Your task to perform on an android device: read, delete, or share a saved page in the chrome app Image 0: 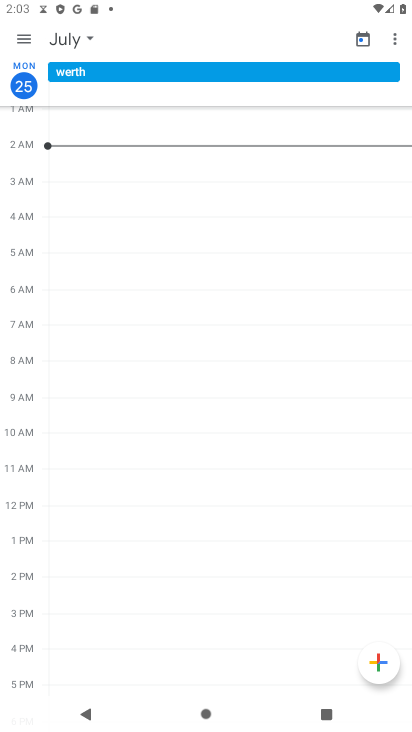
Step 0: press home button
Your task to perform on an android device: read, delete, or share a saved page in the chrome app Image 1: 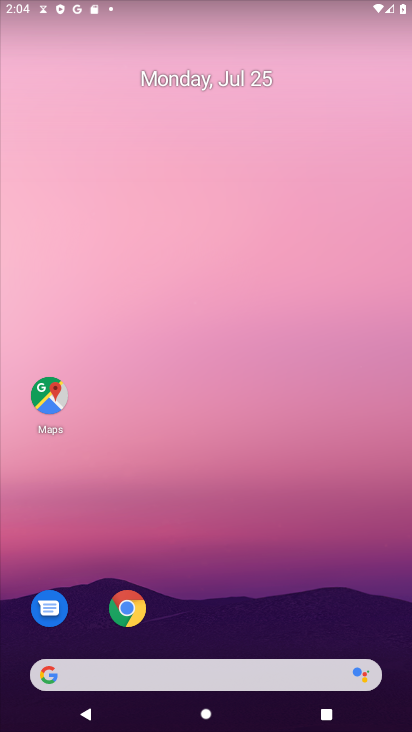
Step 1: click (128, 607)
Your task to perform on an android device: read, delete, or share a saved page in the chrome app Image 2: 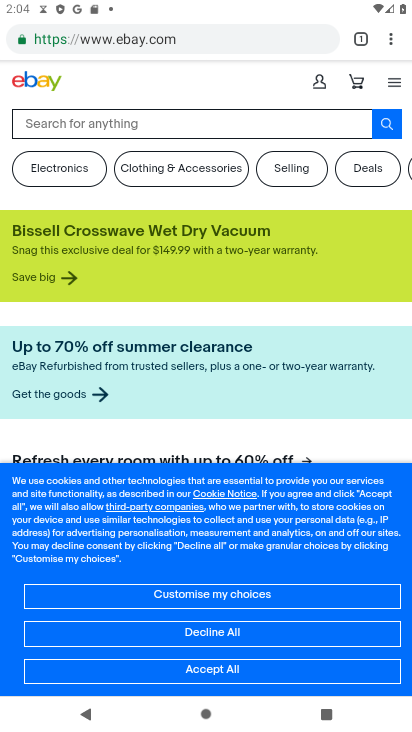
Step 2: click (390, 37)
Your task to perform on an android device: read, delete, or share a saved page in the chrome app Image 3: 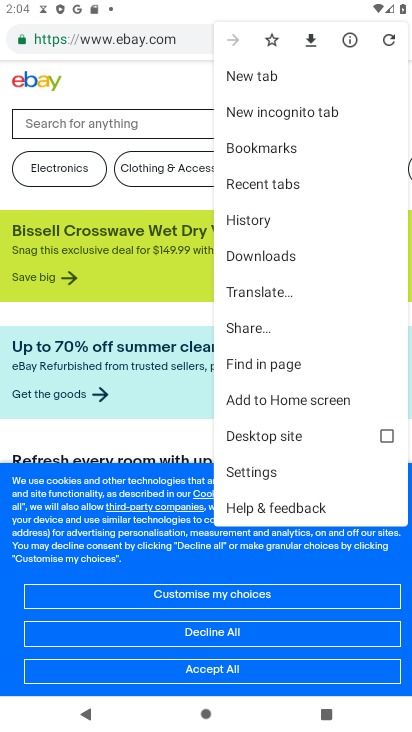
Step 3: click (277, 256)
Your task to perform on an android device: read, delete, or share a saved page in the chrome app Image 4: 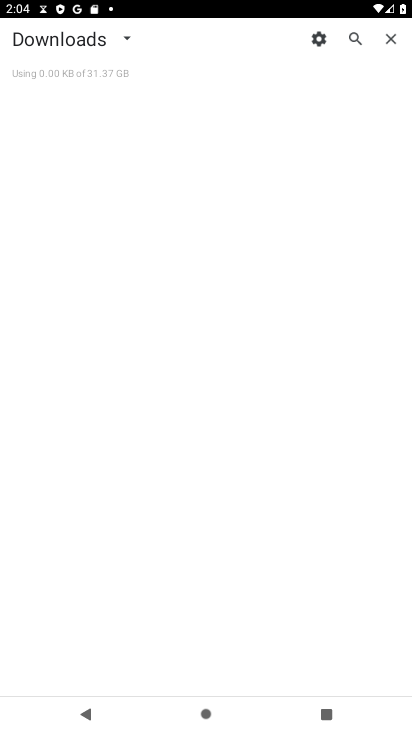
Step 4: click (126, 35)
Your task to perform on an android device: read, delete, or share a saved page in the chrome app Image 5: 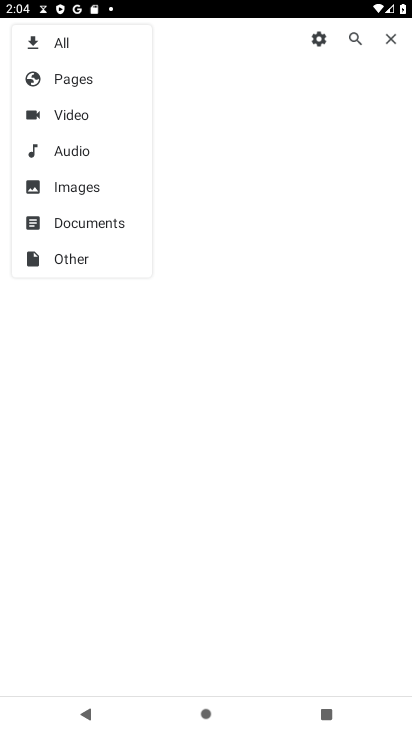
Step 5: click (72, 228)
Your task to perform on an android device: read, delete, or share a saved page in the chrome app Image 6: 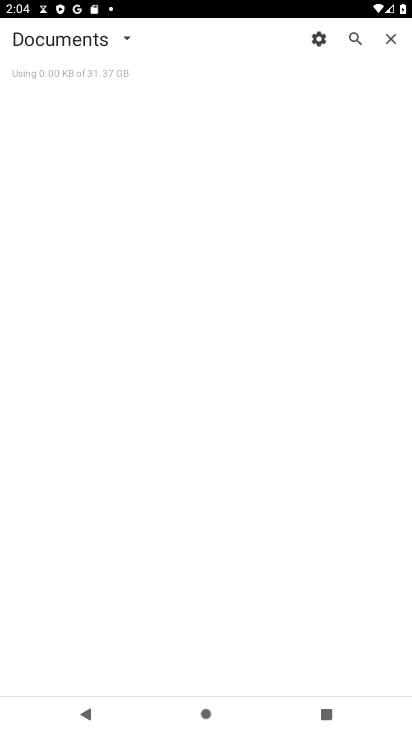
Step 6: click (127, 42)
Your task to perform on an android device: read, delete, or share a saved page in the chrome app Image 7: 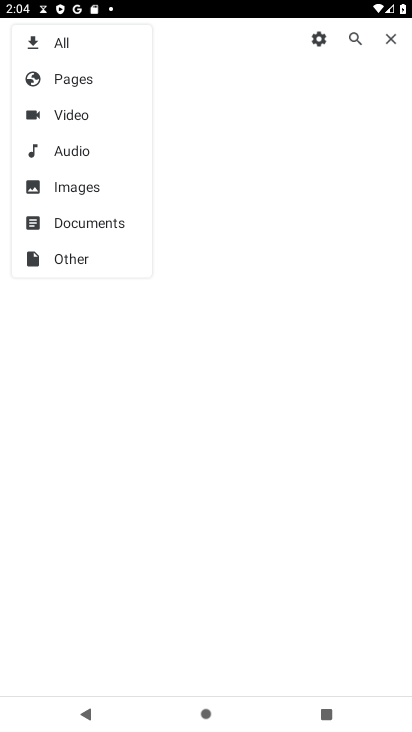
Step 7: click (97, 148)
Your task to perform on an android device: read, delete, or share a saved page in the chrome app Image 8: 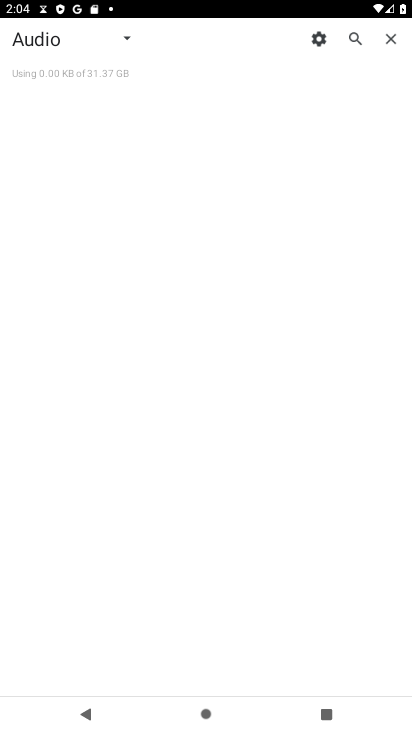
Step 8: task complete